Your task to perform on an android device: Open internet settings Image 0: 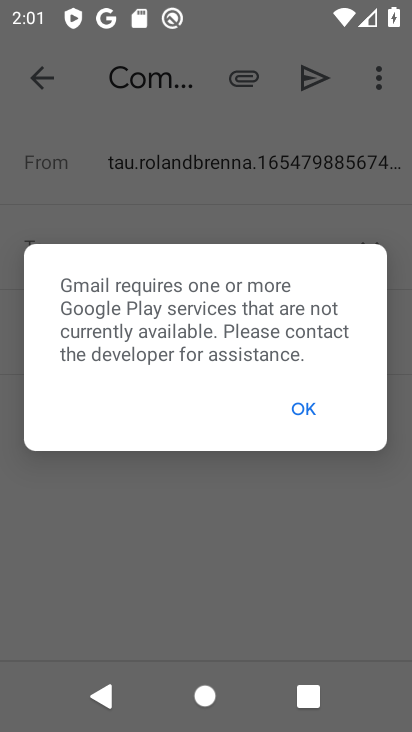
Step 0: press back button
Your task to perform on an android device: Open internet settings Image 1: 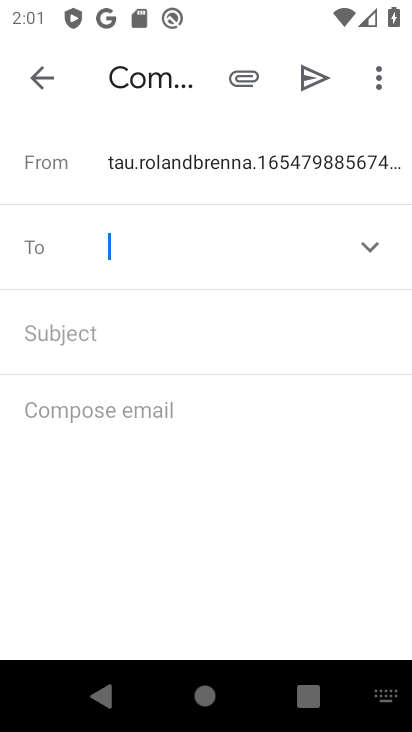
Step 1: press home button
Your task to perform on an android device: Open internet settings Image 2: 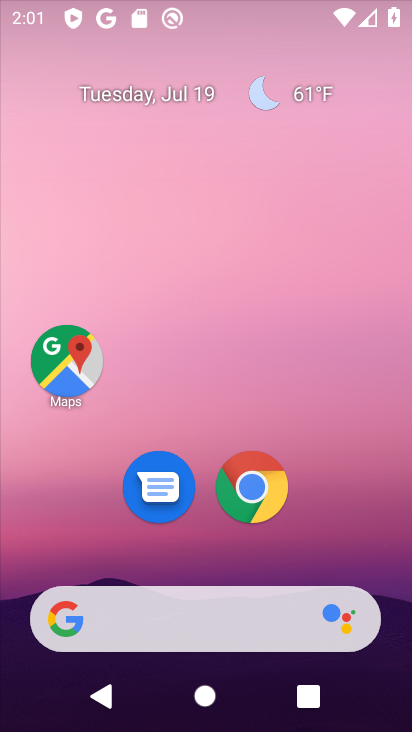
Step 2: drag from (99, 601) to (234, 0)
Your task to perform on an android device: Open internet settings Image 3: 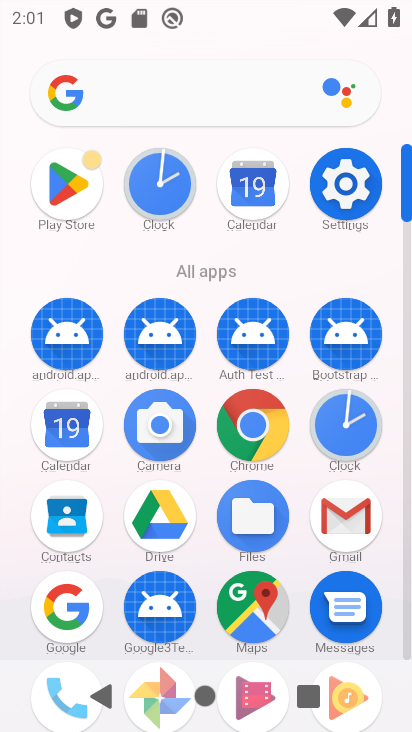
Step 3: click (368, 173)
Your task to perform on an android device: Open internet settings Image 4: 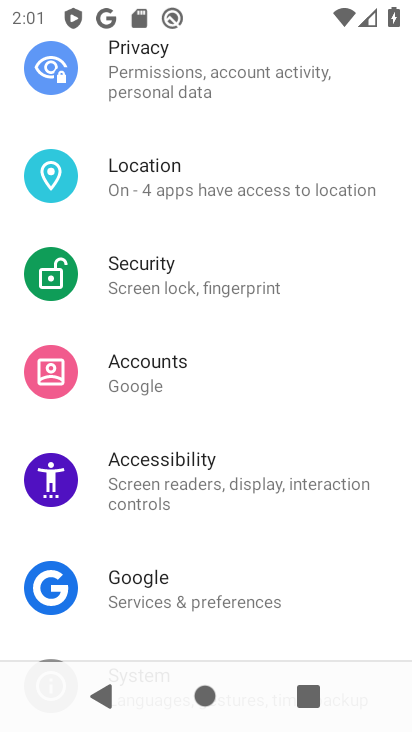
Step 4: drag from (305, 196) to (224, 713)
Your task to perform on an android device: Open internet settings Image 5: 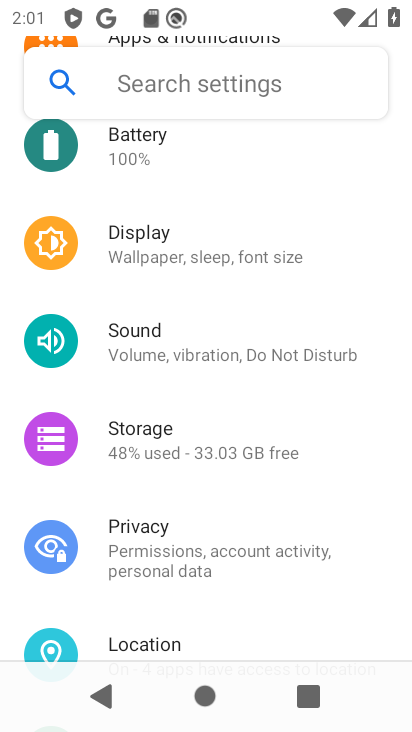
Step 5: drag from (180, 167) to (199, 725)
Your task to perform on an android device: Open internet settings Image 6: 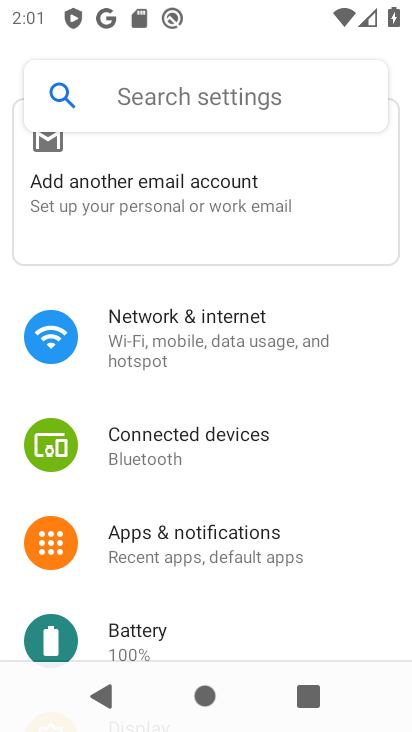
Step 6: drag from (178, 187) to (177, 534)
Your task to perform on an android device: Open internet settings Image 7: 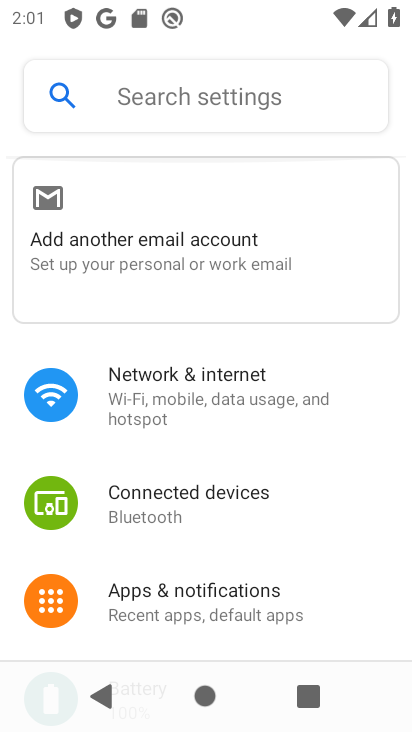
Step 7: click (192, 374)
Your task to perform on an android device: Open internet settings Image 8: 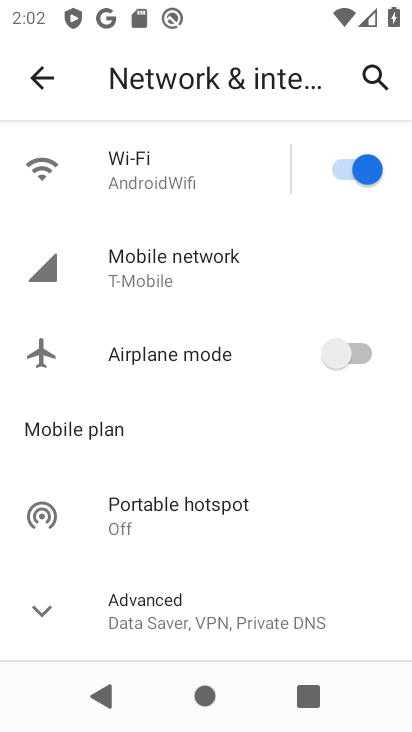
Step 8: task complete